Your task to perform on an android device: Open the stopwatch Image 0: 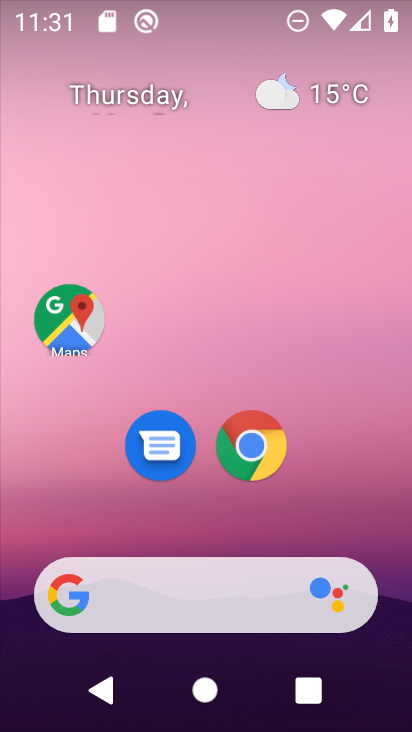
Step 0: drag from (286, 246) to (260, 56)
Your task to perform on an android device: Open the stopwatch Image 1: 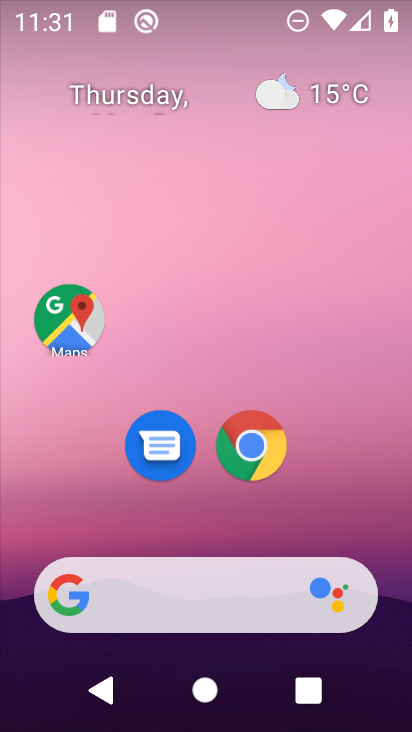
Step 1: drag from (309, 531) to (249, 4)
Your task to perform on an android device: Open the stopwatch Image 2: 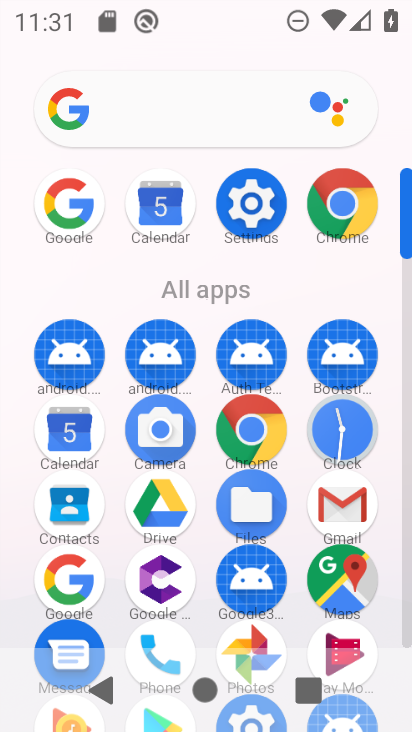
Step 2: click (347, 438)
Your task to perform on an android device: Open the stopwatch Image 3: 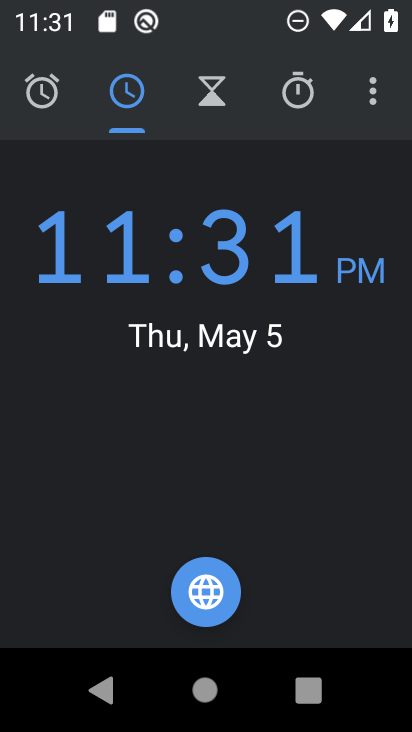
Step 3: click (299, 90)
Your task to perform on an android device: Open the stopwatch Image 4: 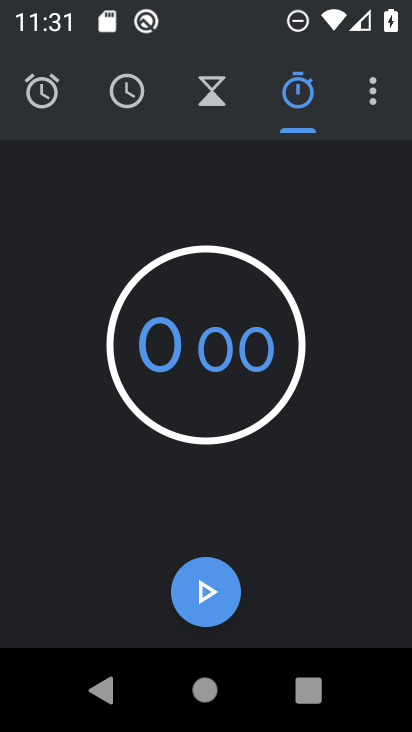
Step 4: task complete